Your task to perform on an android device: Open Chrome and go to the settings page Image 0: 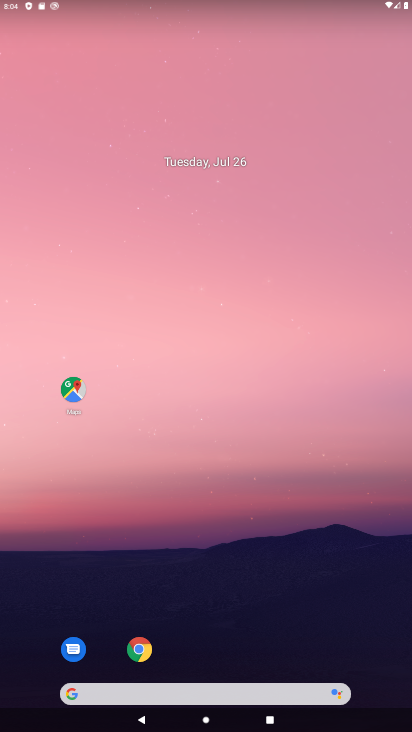
Step 0: click (141, 649)
Your task to perform on an android device: Open Chrome and go to the settings page Image 1: 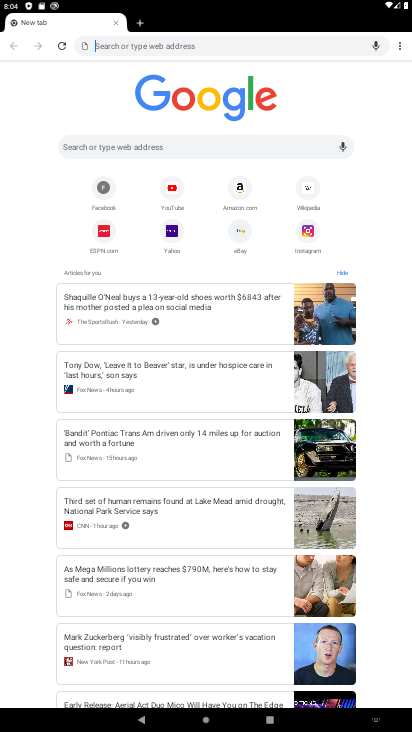
Step 1: click (400, 49)
Your task to perform on an android device: Open Chrome and go to the settings page Image 2: 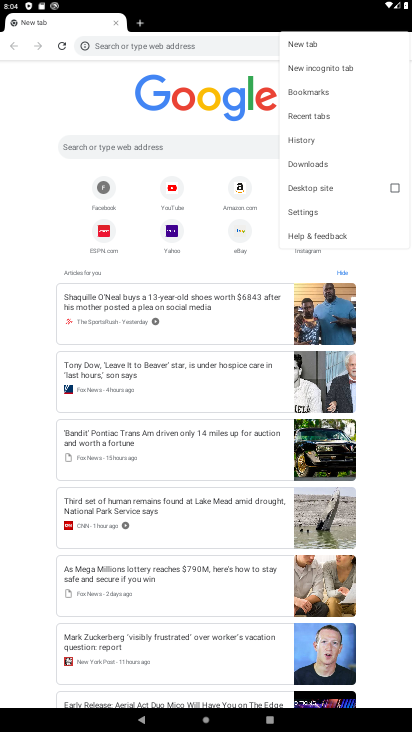
Step 2: click (314, 212)
Your task to perform on an android device: Open Chrome and go to the settings page Image 3: 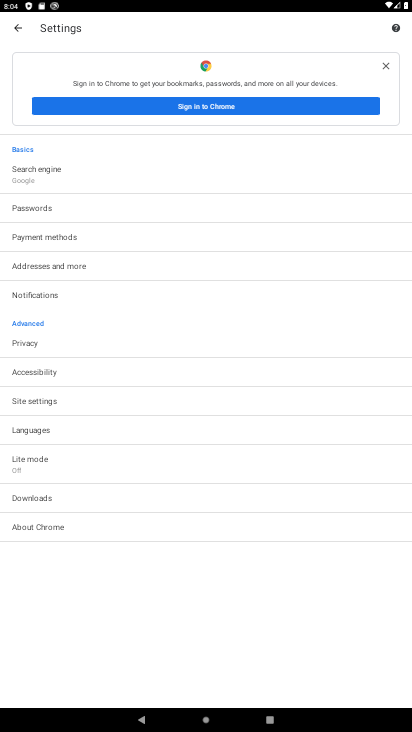
Step 3: task complete